Your task to perform on an android device: clear history in the chrome app Image 0: 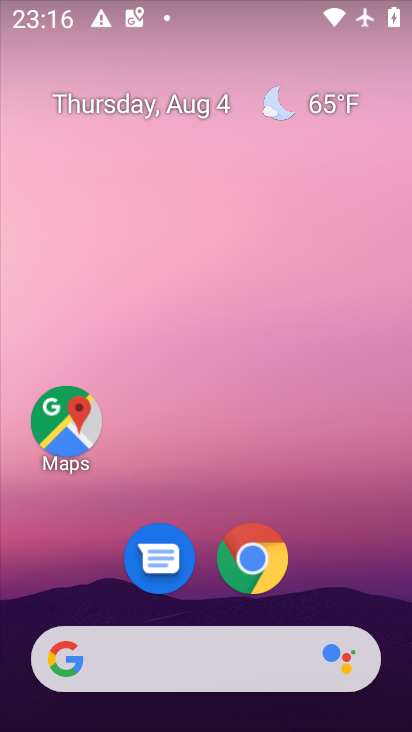
Step 0: drag from (306, 530) to (332, 155)
Your task to perform on an android device: clear history in the chrome app Image 1: 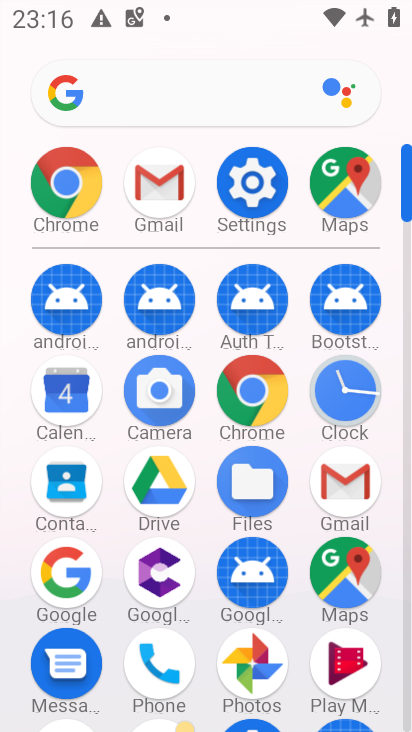
Step 1: click (252, 394)
Your task to perform on an android device: clear history in the chrome app Image 2: 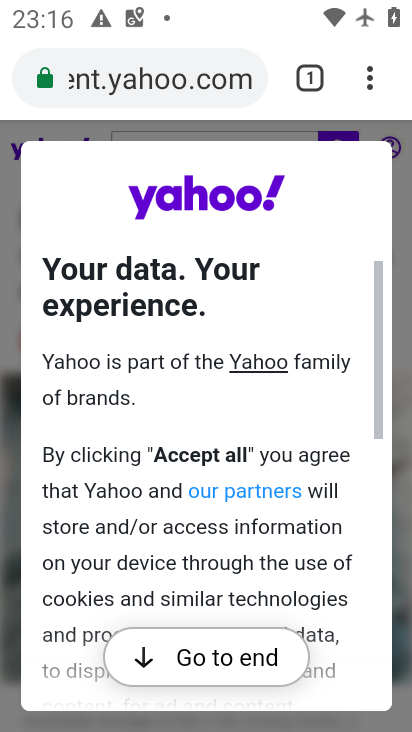
Step 2: drag from (372, 78) to (244, 428)
Your task to perform on an android device: clear history in the chrome app Image 3: 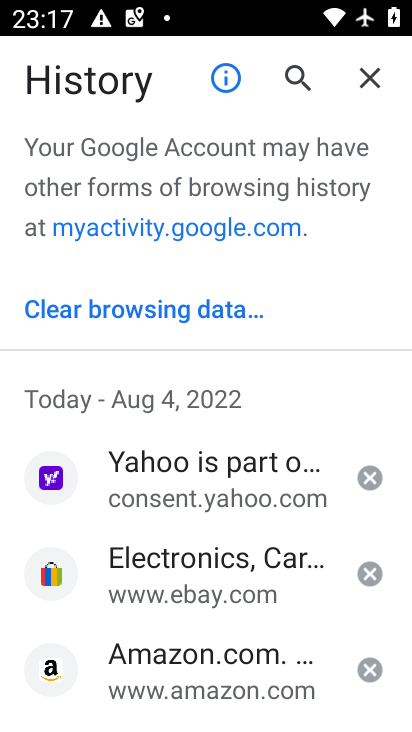
Step 3: click (154, 320)
Your task to perform on an android device: clear history in the chrome app Image 4: 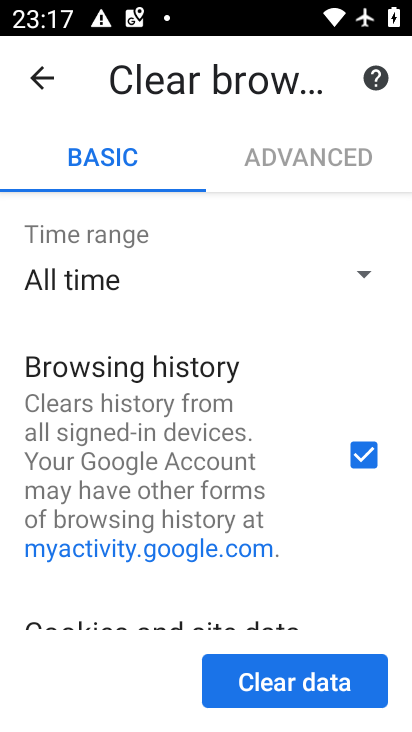
Step 4: click (351, 703)
Your task to perform on an android device: clear history in the chrome app Image 5: 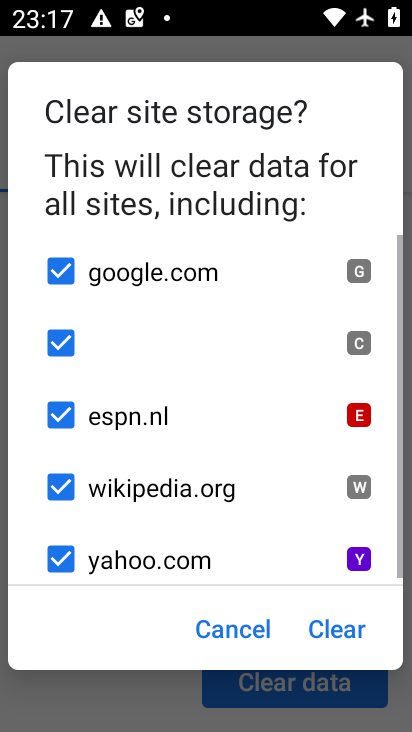
Step 5: click (351, 631)
Your task to perform on an android device: clear history in the chrome app Image 6: 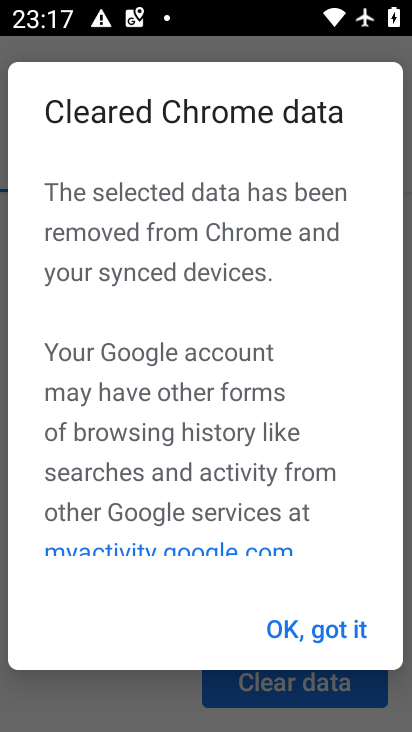
Step 6: click (325, 644)
Your task to perform on an android device: clear history in the chrome app Image 7: 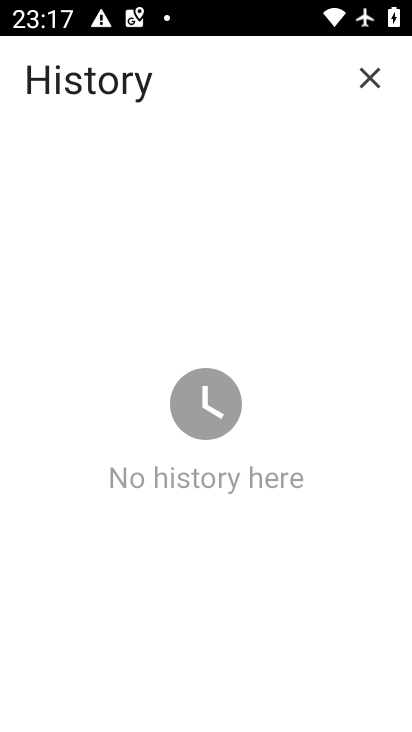
Step 7: task complete